Your task to perform on an android device: change the upload size in google photos Image 0: 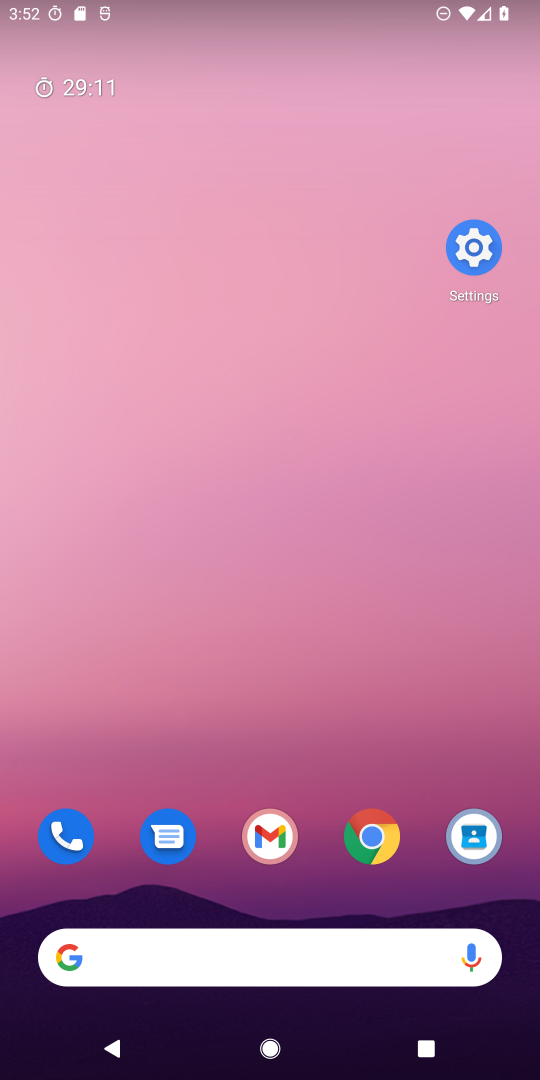
Step 0: drag from (278, 890) to (241, 16)
Your task to perform on an android device: change the upload size in google photos Image 1: 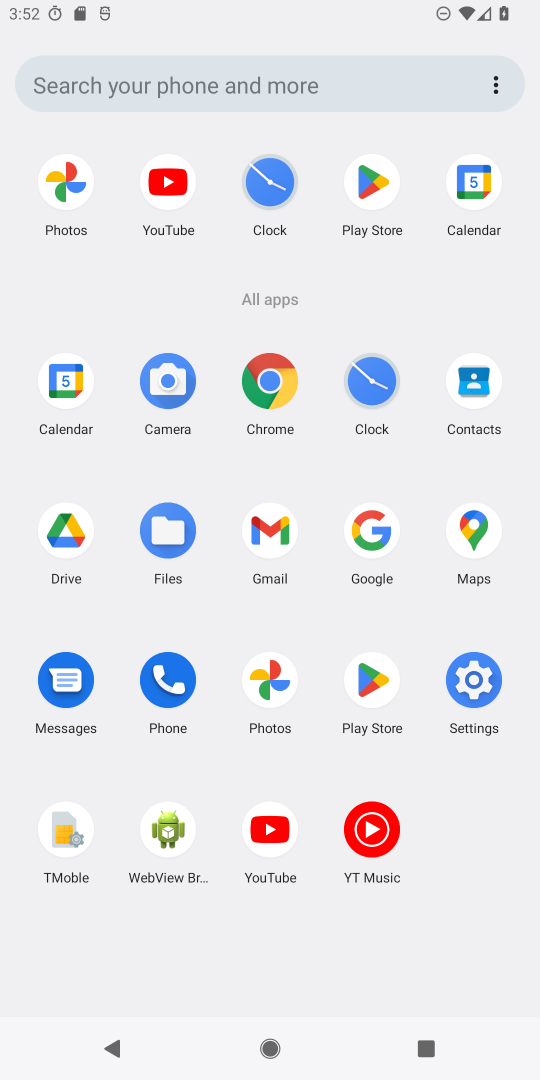
Step 1: click (266, 703)
Your task to perform on an android device: change the upload size in google photos Image 2: 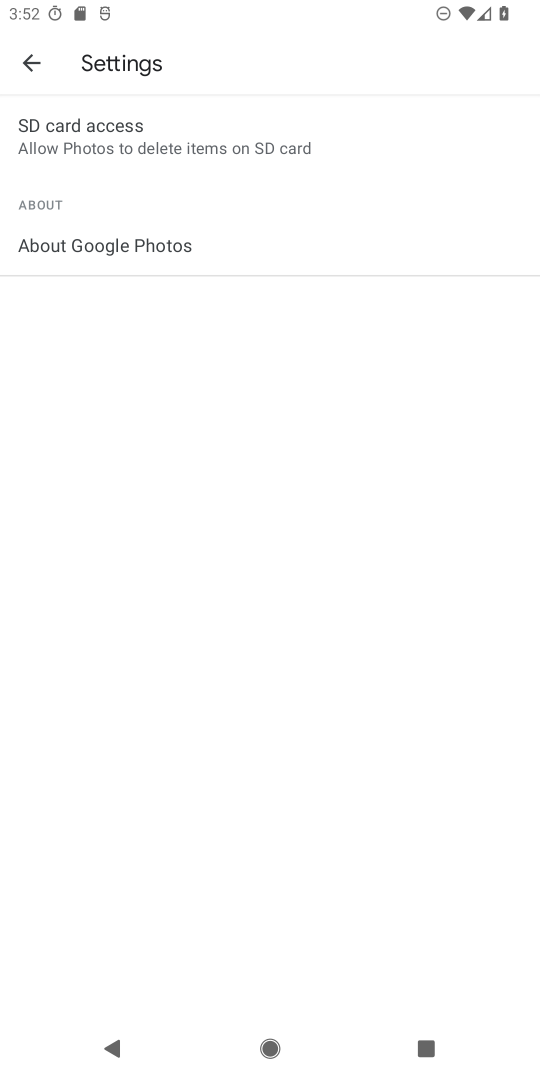
Step 2: click (28, 53)
Your task to perform on an android device: change the upload size in google photos Image 3: 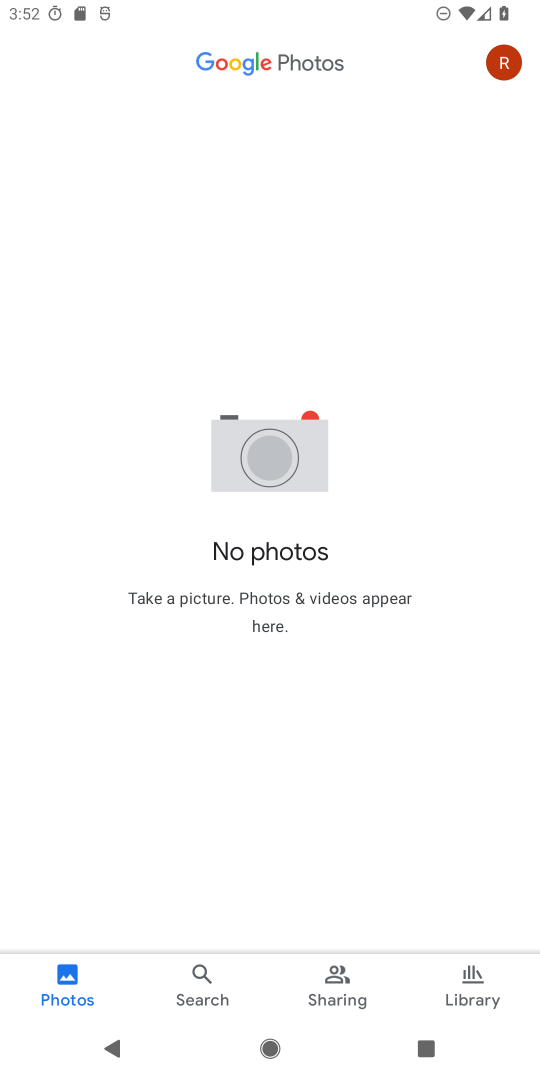
Step 3: click (498, 60)
Your task to perform on an android device: change the upload size in google photos Image 4: 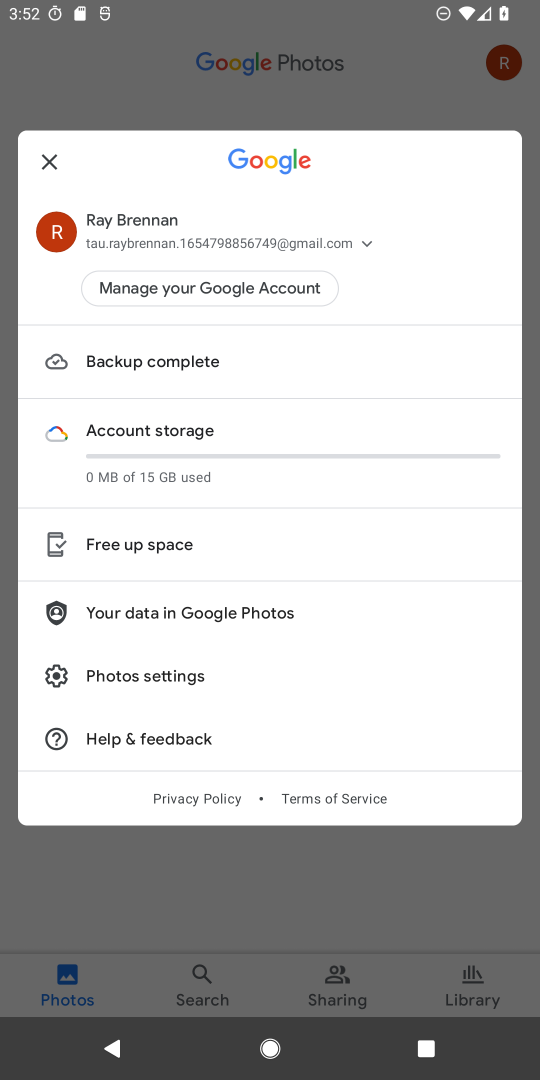
Step 4: click (147, 683)
Your task to perform on an android device: change the upload size in google photos Image 5: 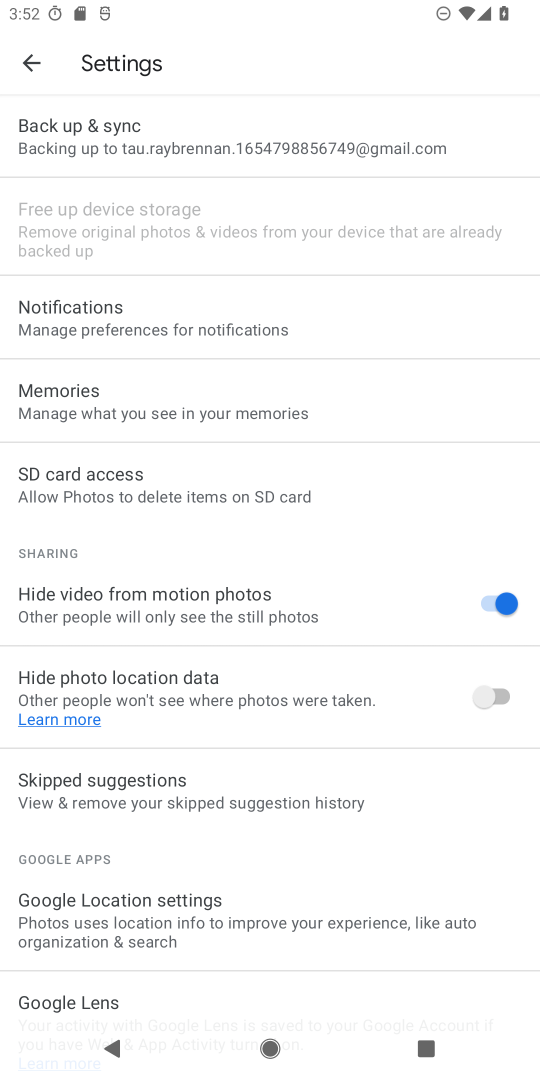
Step 5: click (157, 135)
Your task to perform on an android device: change the upload size in google photos Image 6: 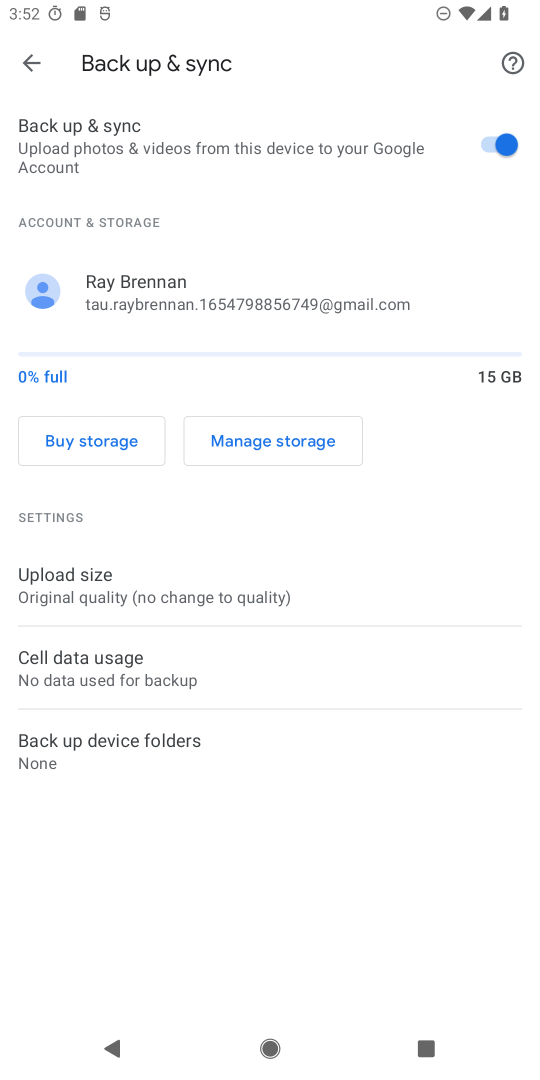
Step 6: click (134, 594)
Your task to perform on an android device: change the upload size in google photos Image 7: 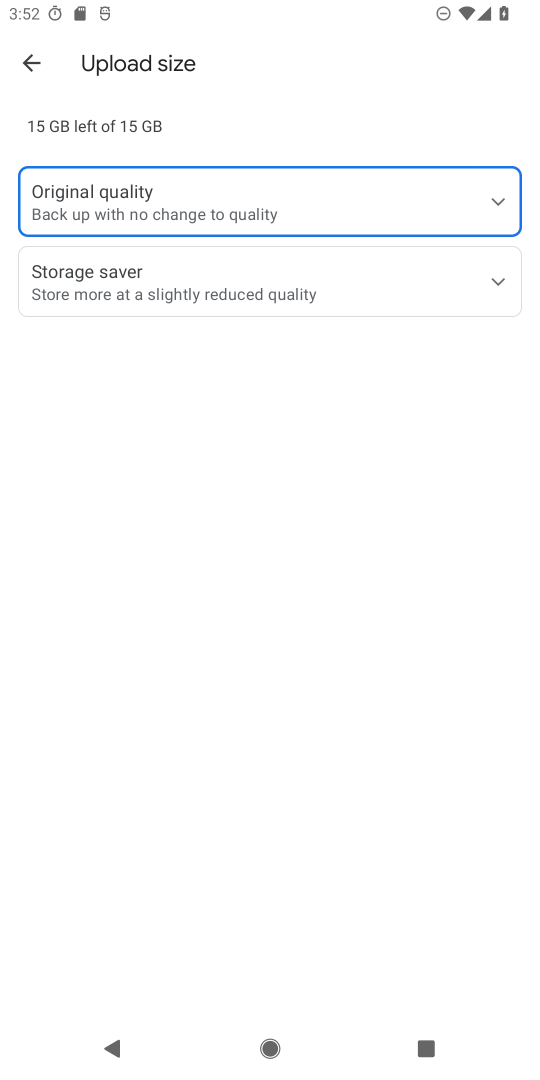
Step 7: click (157, 292)
Your task to perform on an android device: change the upload size in google photos Image 8: 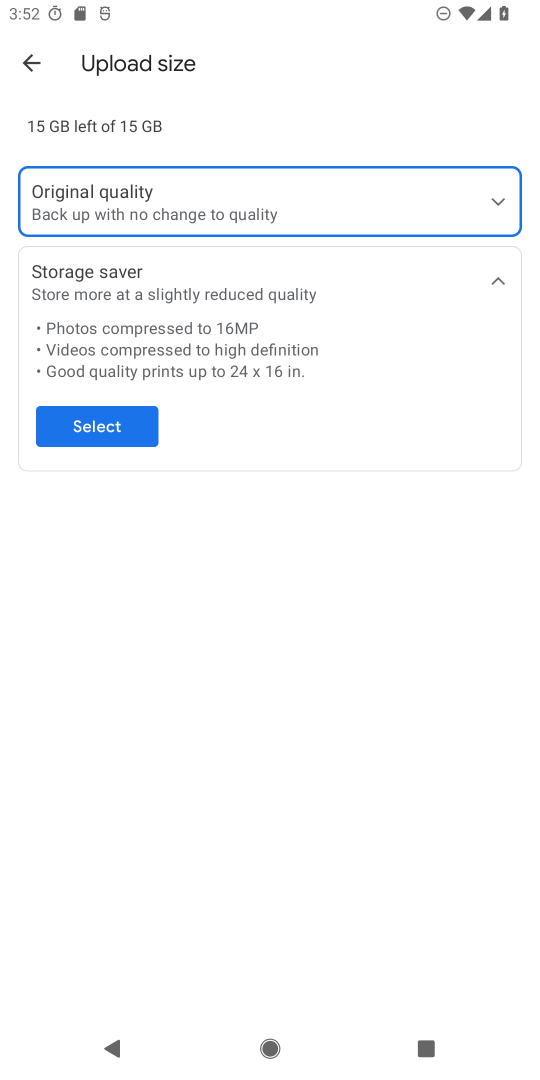
Step 8: click (107, 440)
Your task to perform on an android device: change the upload size in google photos Image 9: 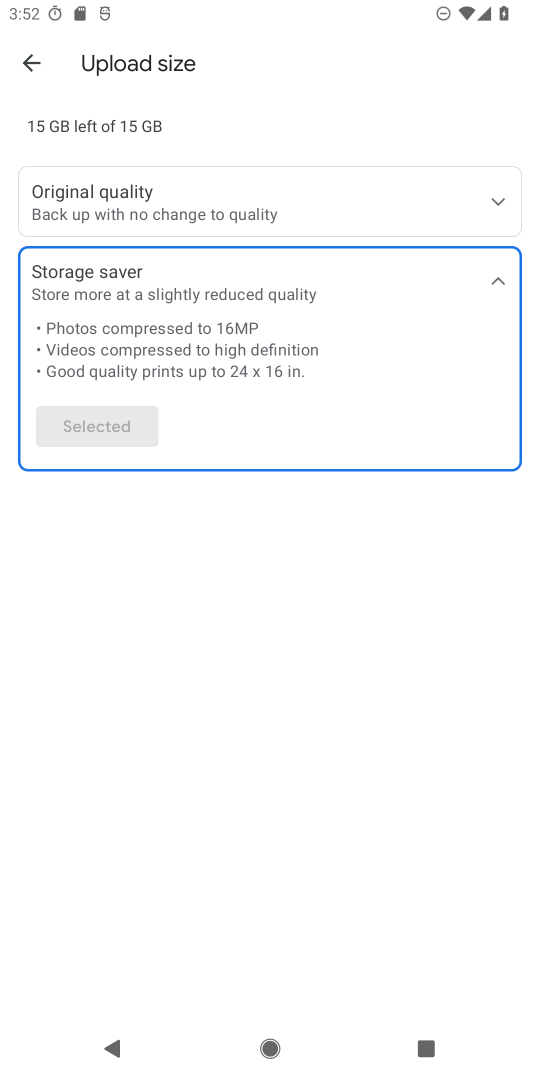
Step 9: task complete